Your task to perform on an android device: Go to Amazon Image 0: 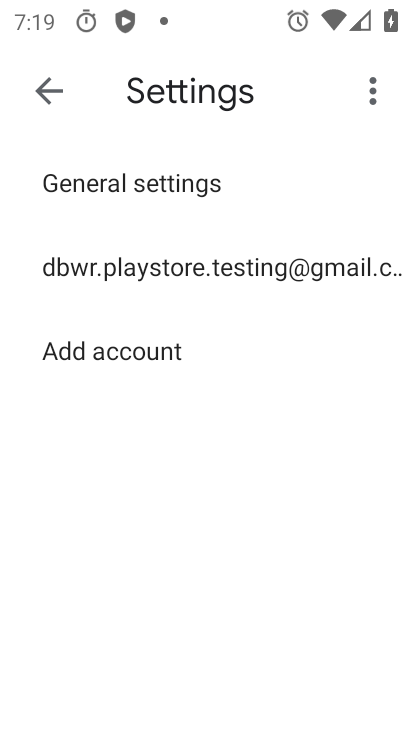
Step 0: press home button
Your task to perform on an android device: Go to Amazon Image 1: 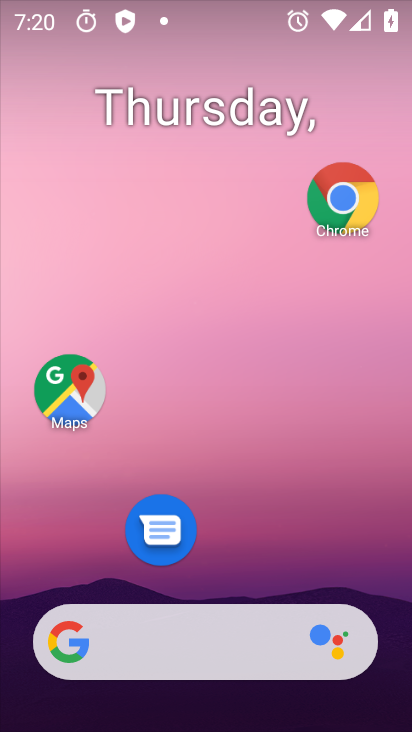
Step 1: drag from (229, 662) to (194, 162)
Your task to perform on an android device: Go to Amazon Image 2: 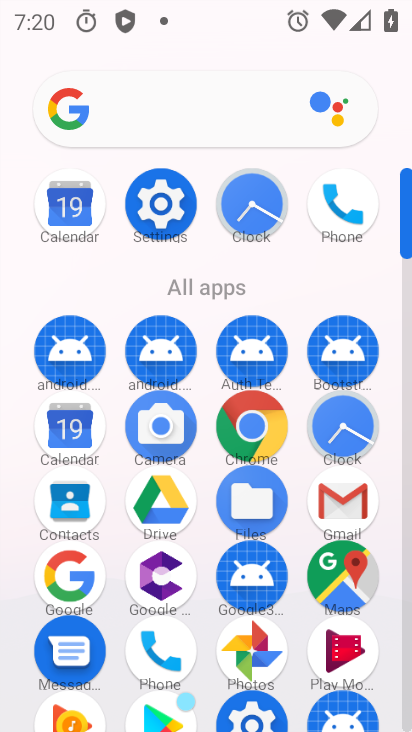
Step 2: click (242, 433)
Your task to perform on an android device: Go to Amazon Image 3: 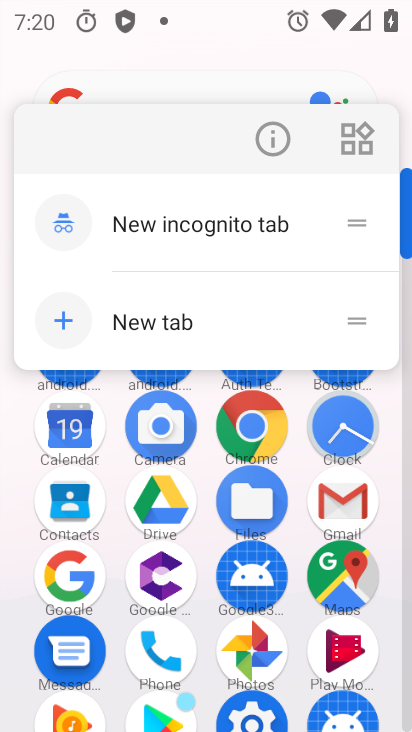
Step 3: click (252, 426)
Your task to perform on an android device: Go to Amazon Image 4: 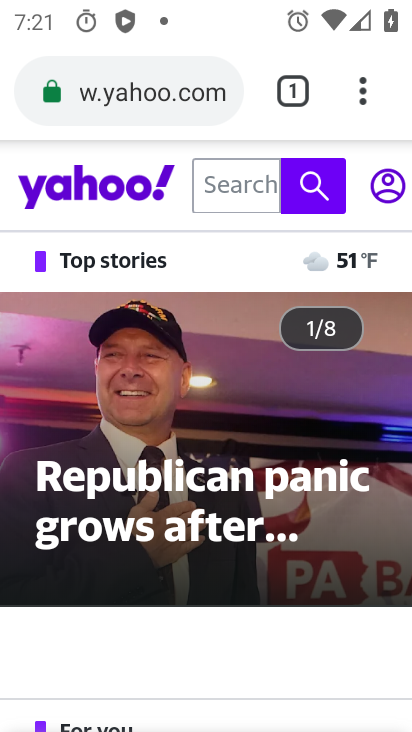
Step 4: click (294, 96)
Your task to perform on an android device: Go to Amazon Image 5: 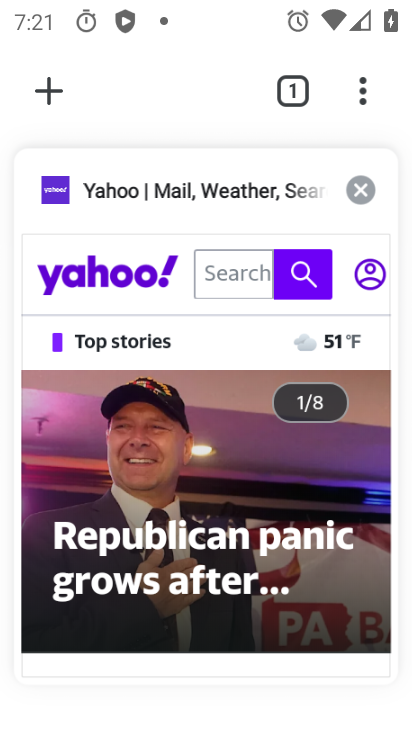
Step 5: click (56, 94)
Your task to perform on an android device: Go to Amazon Image 6: 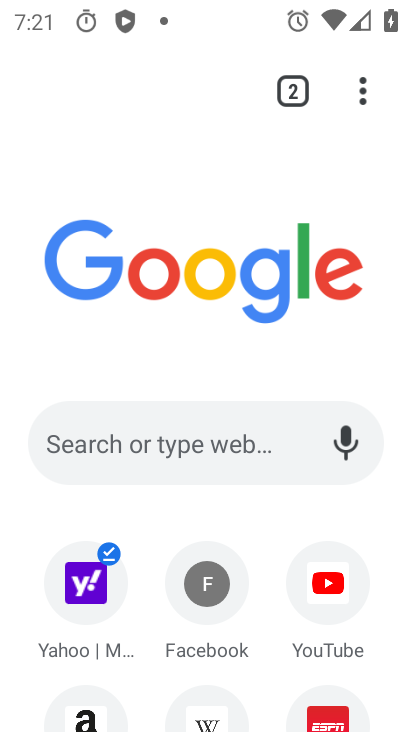
Step 6: click (85, 703)
Your task to perform on an android device: Go to Amazon Image 7: 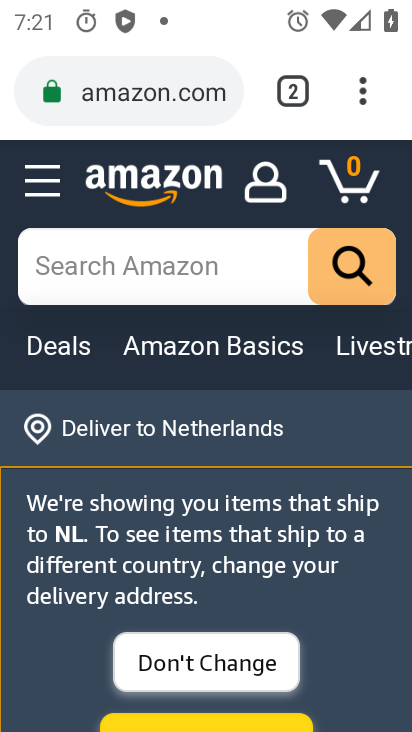
Step 7: task complete